Your task to perform on an android device: Go to internet settings Image 0: 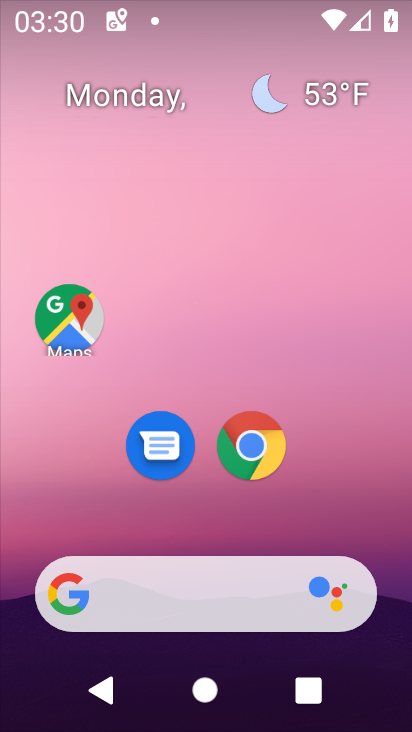
Step 0: drag from (189, 525) to (244, 98)
Your task to perform on an android device: Go to internet settings Image 1: 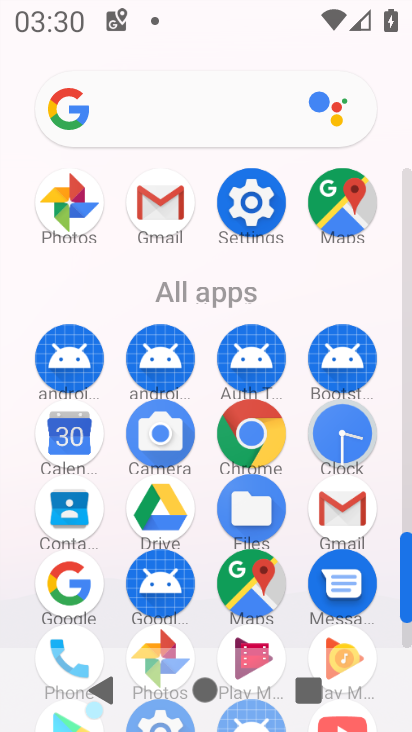
Step 1: click (259, 206)
Your task to perform on an android device: Go to internet settings Image 2: 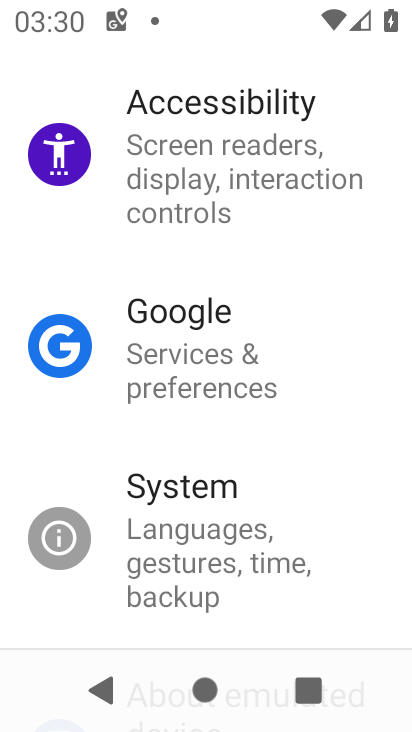
Step 2: drag from (217, 231) to (194, 532)
Your task to perform on an android device: Go to internet settings Image 3: 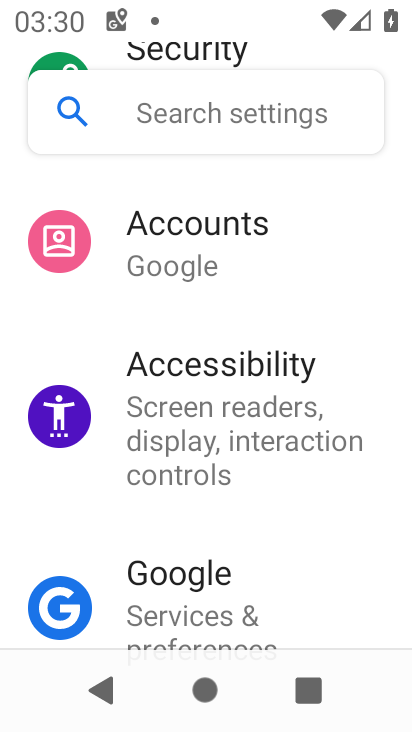
Step 3: drag from (226, 319) to (203, 625)
Your task to perform on an android device: Go to internet settings Image 4: 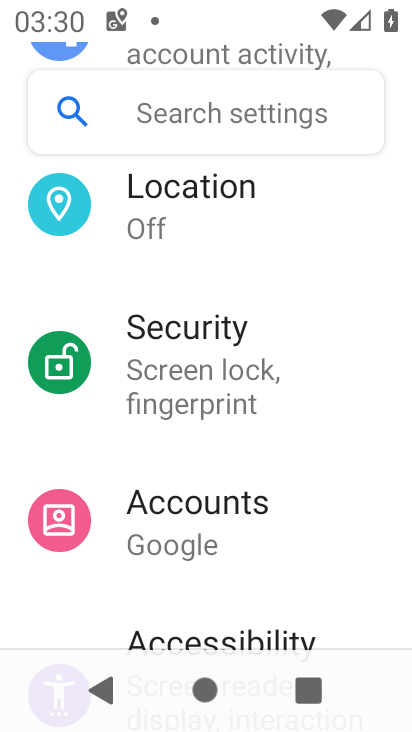
Step 4: drag from (228, 299) to (226, 439)
Your task to perform on an android device: Go to internet settings Image 5: 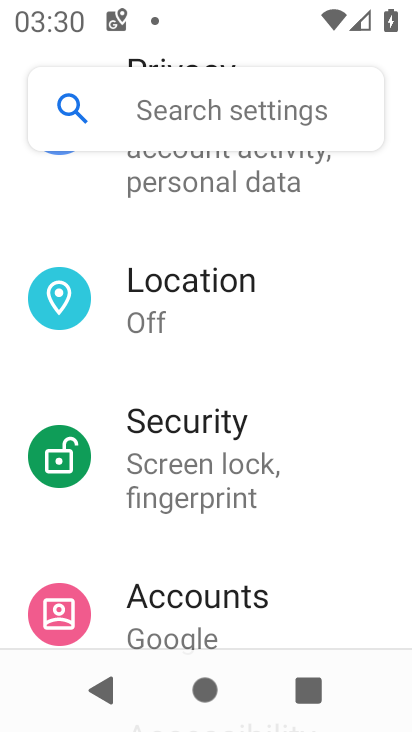
Step 5: drag from (222, 271) to (231, 585)
Your task to perform on an android device: Go to internet settings Image 6: 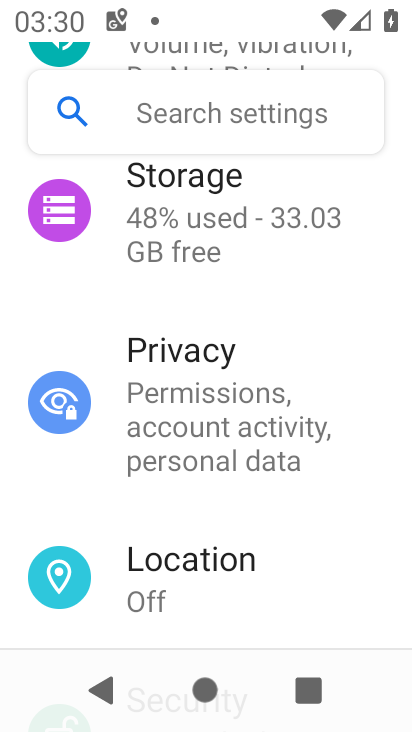
Step 6: drag from (254, 322) to (254, 707)
Your task to perform on an android device: Go to internet settings Image 7: 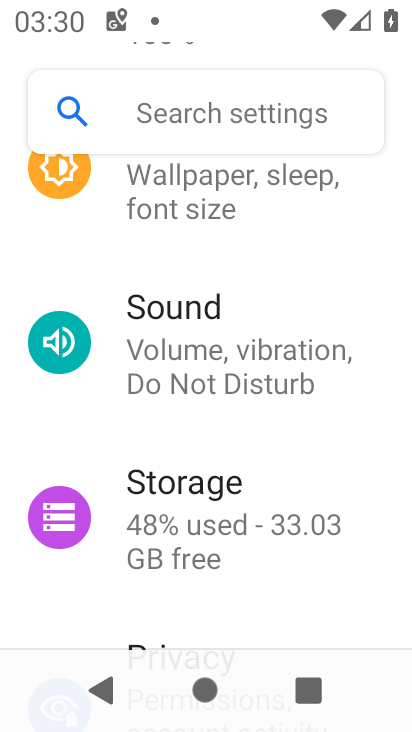
Step 7: drag from (224, 347) to (234, 537)
Your task to perform on an android device: Go to internet settings Image 8: 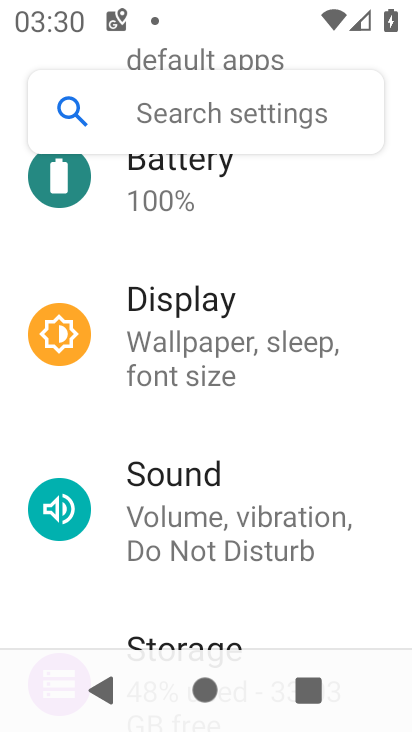
Step 8: drag from (227, 257) to (217, 492)
Your task to perform on an android device: Go to internet settings Image 9: 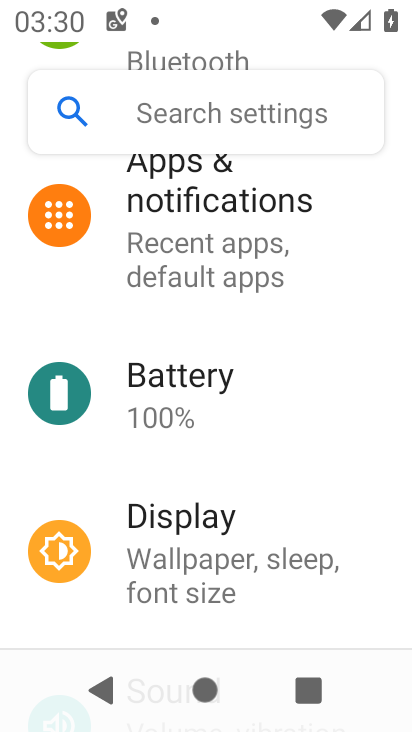
Step 9: drag from (233, 221) to (221, 547)
Your task to perform on an android device: Go to internet settings Image 10: 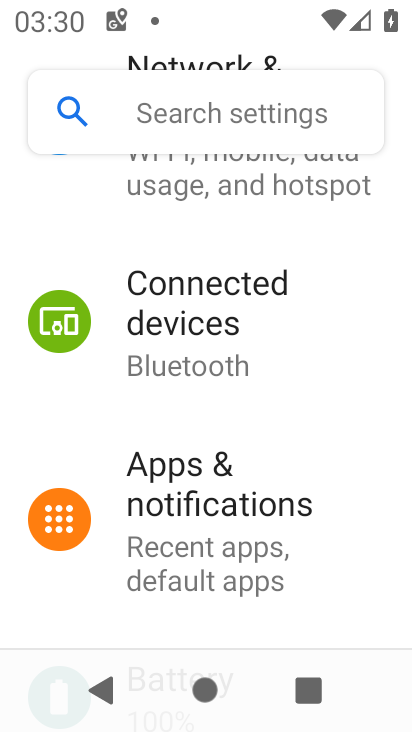
Step 10: drag from (284, 254) to (280, 588)
Your task to perform on an android device: Go to internet settings Image 11: 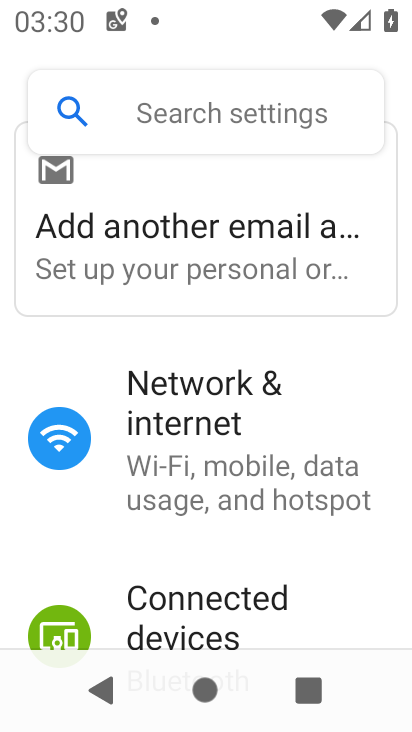
Step 11: click (271, 487)
Your task to perform on an android device: Go to internet settings Image 12: 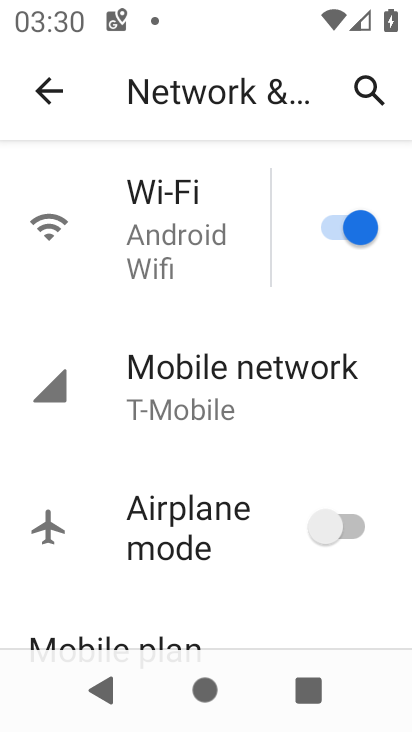
Step 12: task complete